Your task to perform on an android device: Is it going to rain this weekend? Image 0: 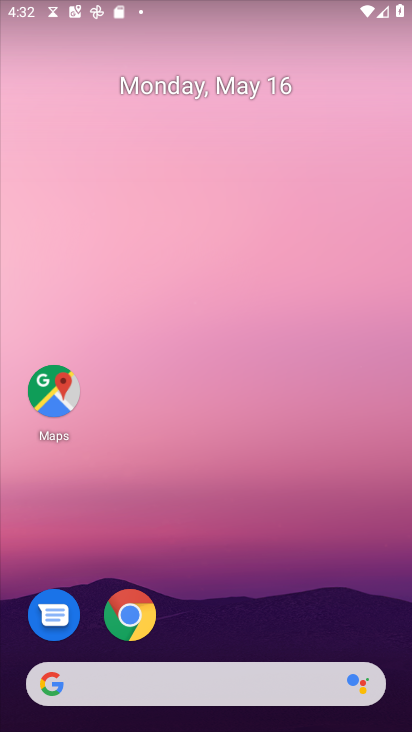
Step 0: drag from (240, 552) to (303, 7)
Your task to perform on an android device: Is it going to rain this weekend? Image 1: 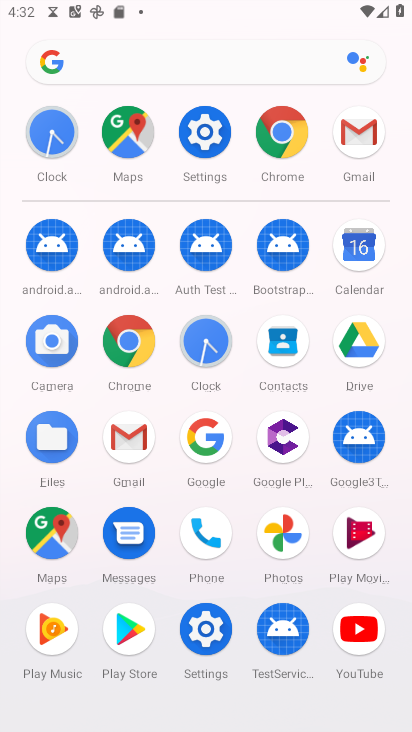
Step 1: click (201, 458)
Your task to perform on an android device: Is it going to rain this weekend? Image 2: 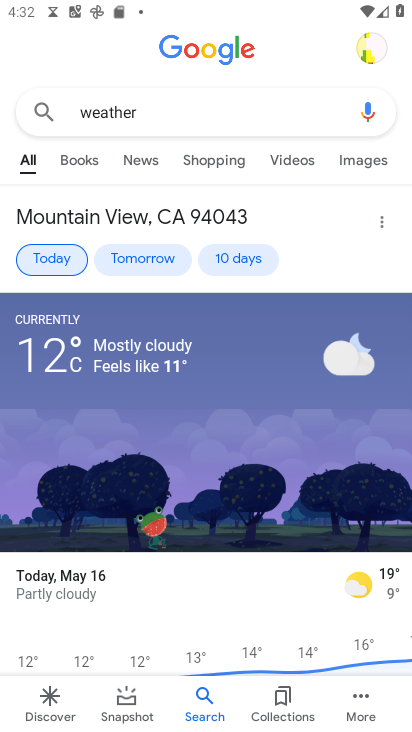
Step 2: click (249, 264)
Your task to perform on an android device: Is it going to rain this weekend? Image 3: 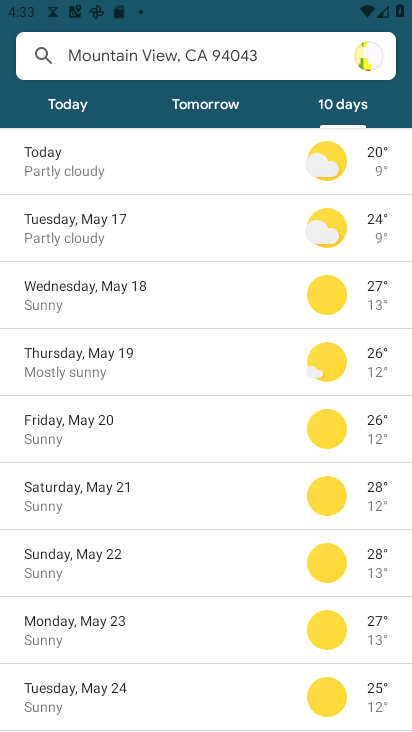
Step 3: click (400, 215)
Your task to perform on an android device: Is it going to rain this weekend? Image 4: 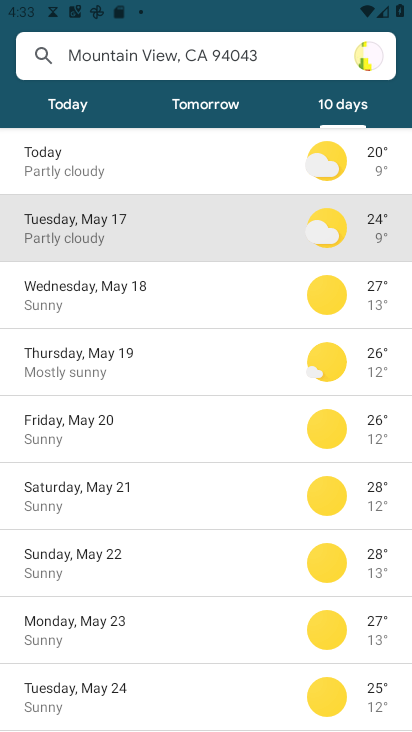
Step 4: task complete